Your task to perform on an android device: turn pop-ups off in chrome Image 0: 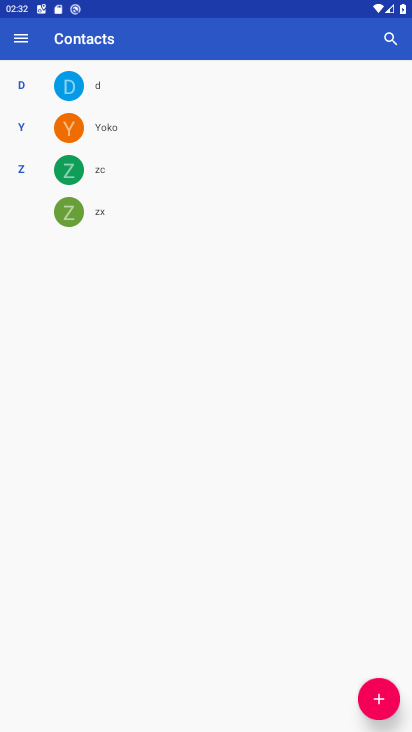
Step 0: drag from (140, 644) to (129, 362)
Your task to perform on an android device: turn pop-ups off in chrome Image 1: 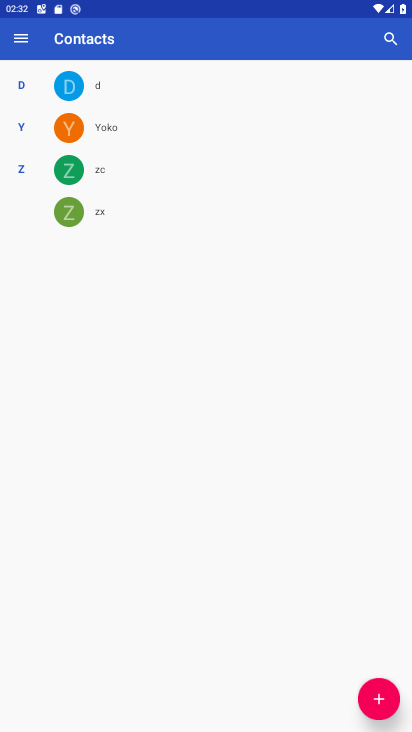
Step 1: press home button
Your task to perform on an android device: turn pop-ups off in chrome Image 2: 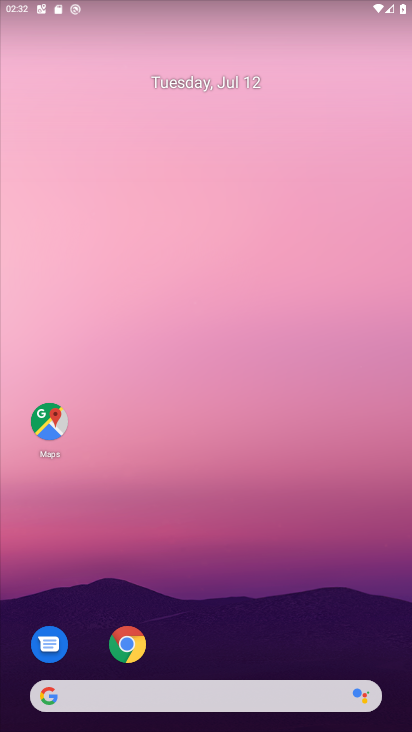
Step 2: click (122, 633)
Your task to perform on an android device: turn pop-ups off in chrome Image 3: 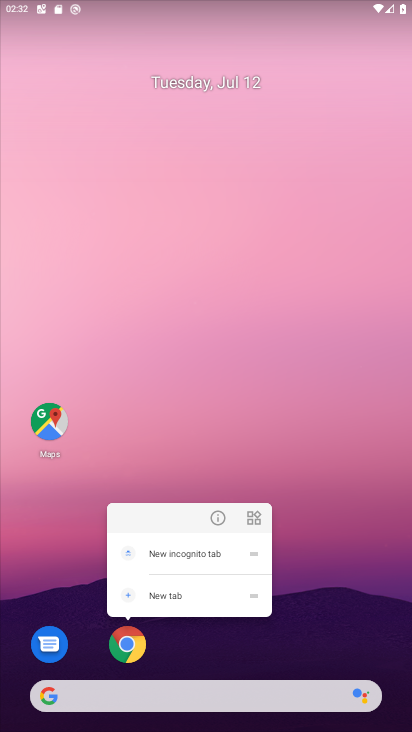
Step 3: click (127, 641)
Your task to perform on an android device: turn pop-ups off in chrome Image 4: 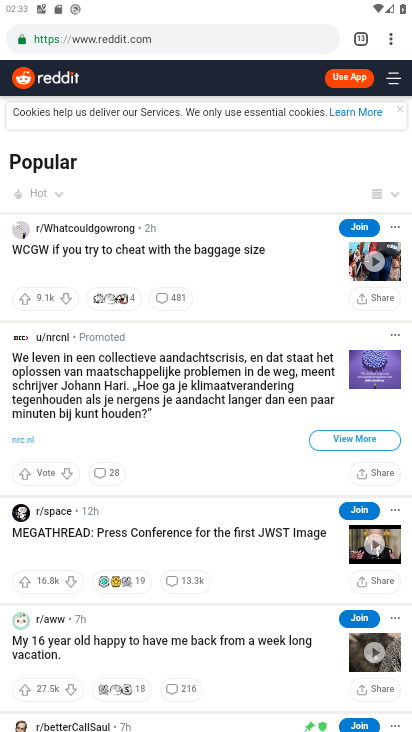
Step 4: drag from (387, 40) to (252, 467)
Your task to perform on an android device: turn pop-ups off in chrome Image 5: 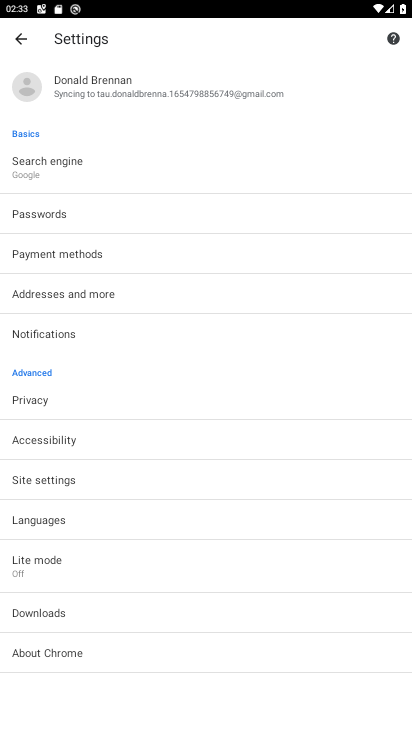
Step 5: click (36, 486)
Your task to perform on an android device: turn pop-ups off in chrome Image 6: 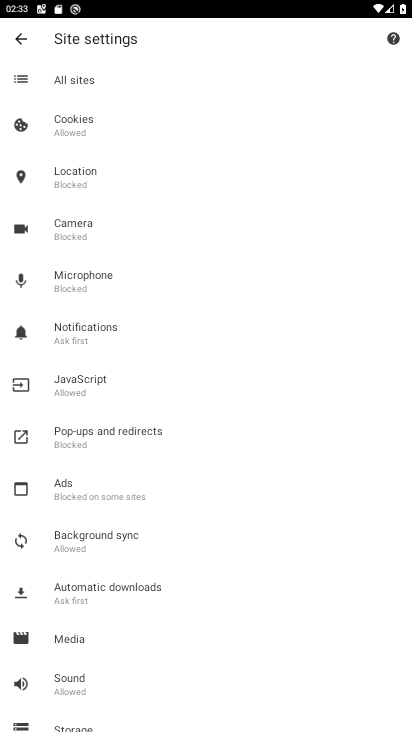
Step 6: click (103, 446)
Your task to perform on an android device: turn pop-ups off in chrome Image 7: 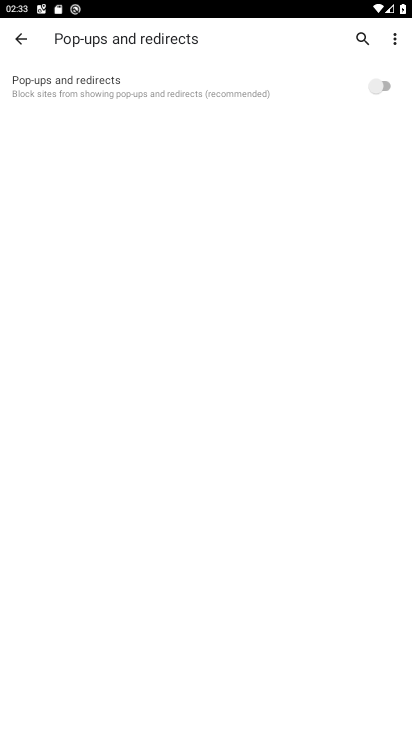
Step 7: task complete